Your task to perform on an android device: find which apps use the phone's location Image 0: 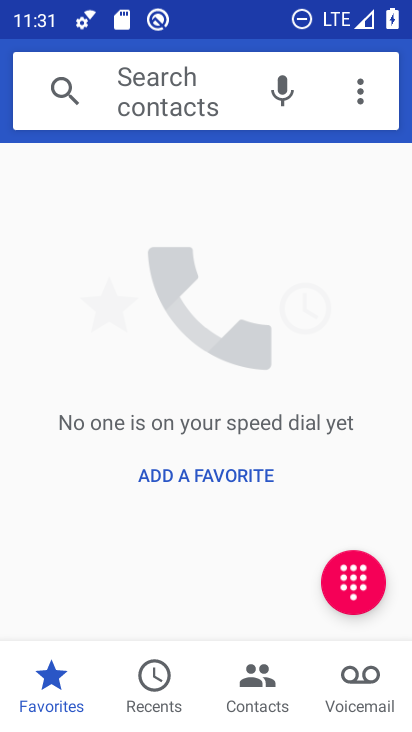
Step 0: press home button
Your task to perform on an android device: find which apps use the phone's location Image 1: 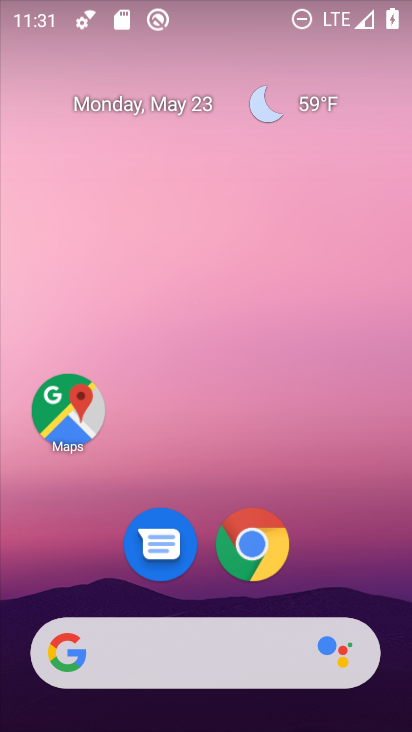
Step 1: drag from (385, 588) to (361, 97)
Your task to perform on an android device: find which apps use the phone's location Image 2: 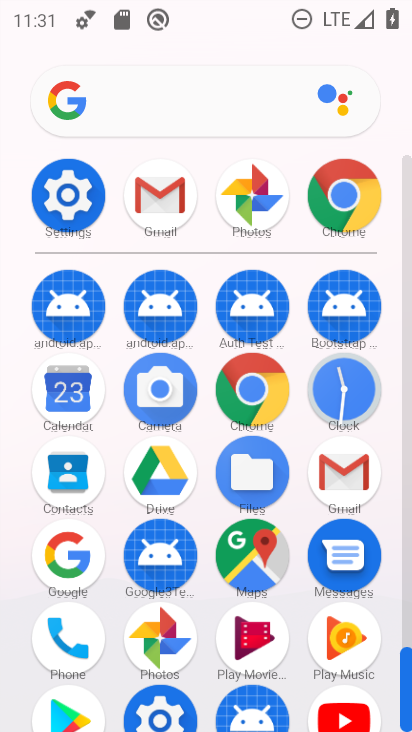
Step 2: click (408, 635)
Your task to perform on an android device: find which apps use the phone's location Image 3: 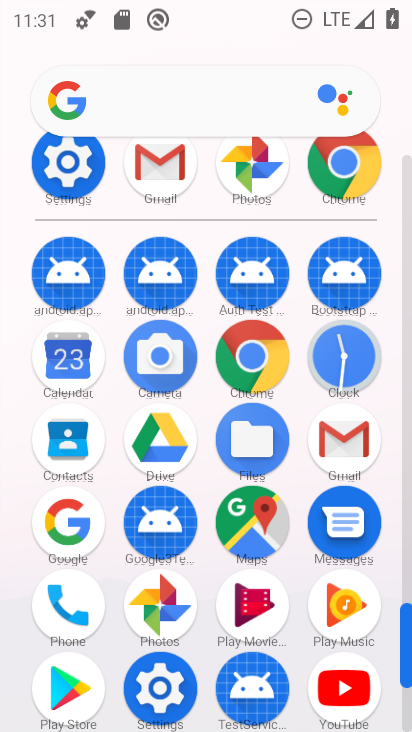
Step 3: click (154, 689)
Your task to perform on an android device: find which apps use the phone's location Image 4: 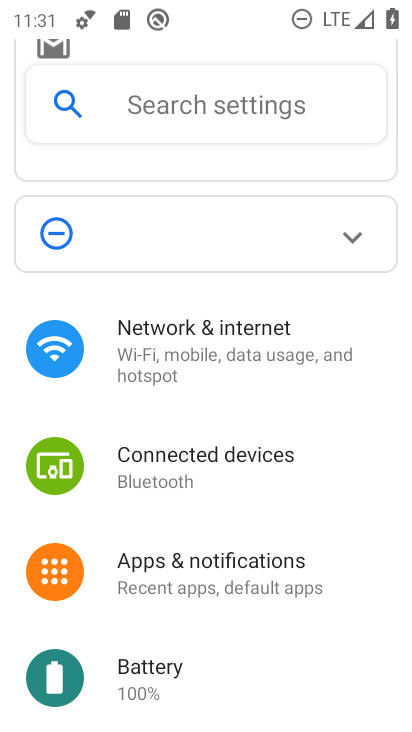
Step 4: drag from (344, 682) to (307, 151)
Your task to perform on an android device: find which apps use the phone's location Image 5: 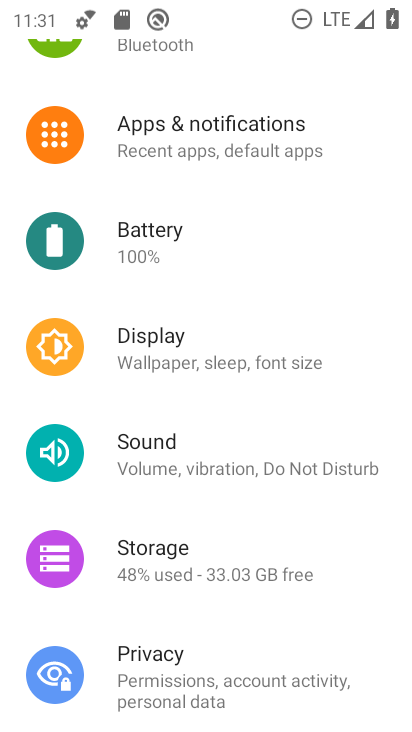
Step 5: drag from (270, 625) to (314, 213)
Your task to perform on an android device: find which apps use the phone's location Image 6: 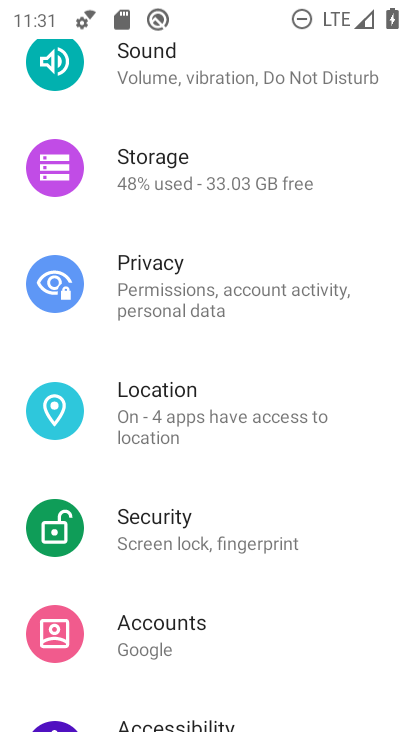
Step 6: click (147, 394)
Your task to perform on an android device: find which apps use the phone's location Image 7: 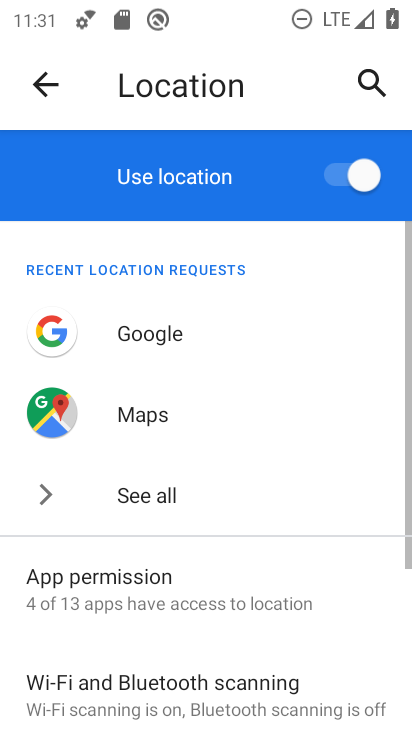
Step 7: drag from (183, 595) to (256, 198)
Your task to perform on an android device: find which apps use the phone's location Image 8: 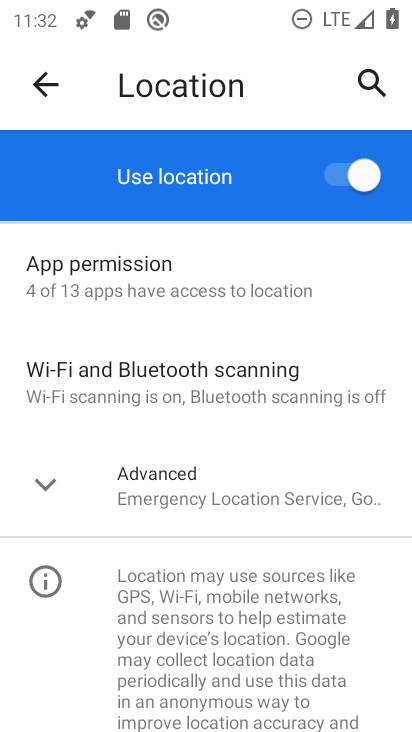
Step 8: click (112, 275)
Your task to perform on an android device: find which apps use the phone's location Image 9: 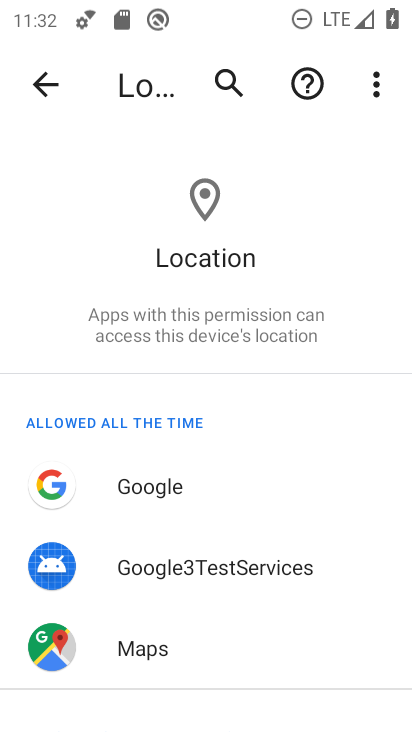
Step 9: drag from (252, 571) to (257, 133)
Your task to perform on an android device: find which apps use the phone's location Image 10: 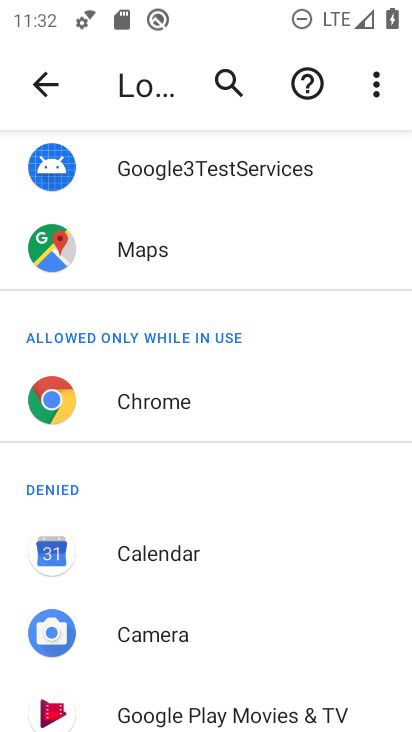
Step 10: drag from (245, 598) to (251, 206)
Your task to perform on an android device: find which apps use the phone's location Image 11: 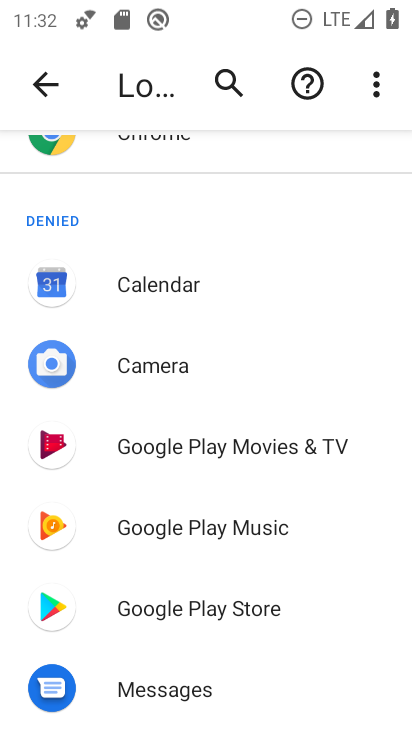
Step 11: drag from (246, 651) to (279, 165)
Your task to perform on an android device: find which apps use the phone's location Image 12: 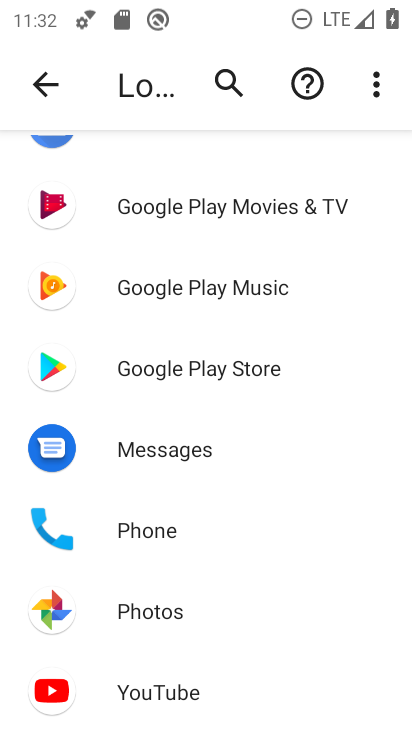
Step 12: click (122, 620)
Your task to perform on an android device: find which apps use the phone's location Image 13: 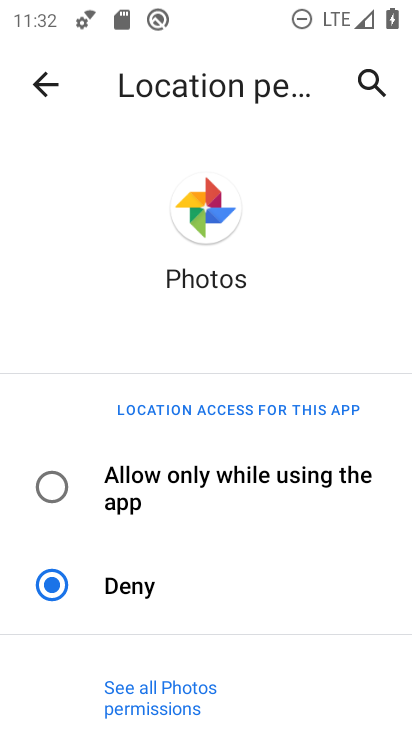
Step 13: task complete